Your task to perform on an android device: When is my next appointment? Image 0: 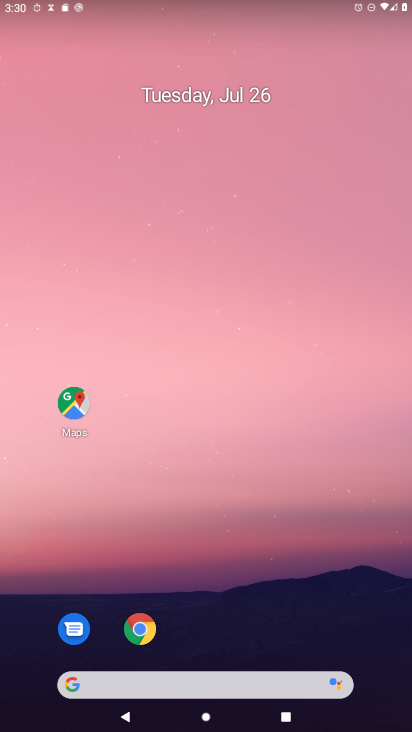
Step 0: drag from (222, 677) to (298, 34)
Your task to perform on an android device: When is my next appointment? Image 1: 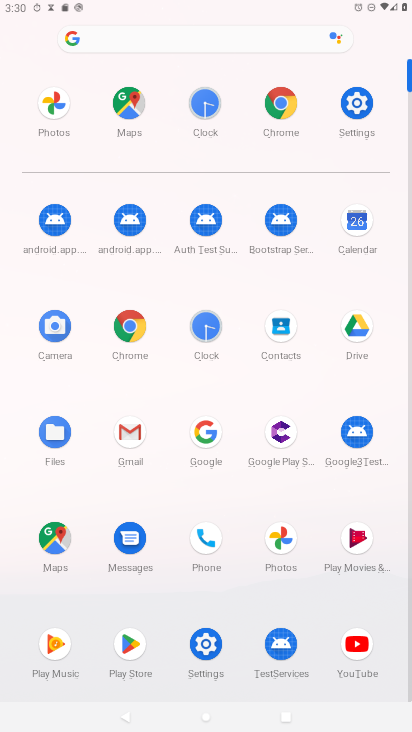
Step 1: click (351, 217)
Your task to perform on an android device: When is my next appointment? Image 2: 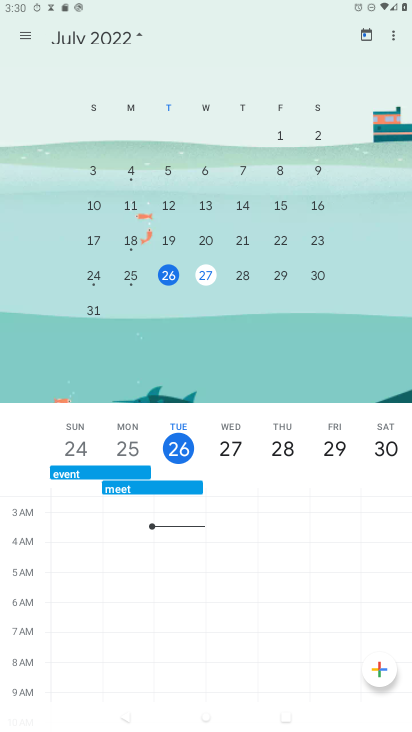
Step 2: click (241, 274)
Your task to perform on an android device: When is my next appointment? Image 3: 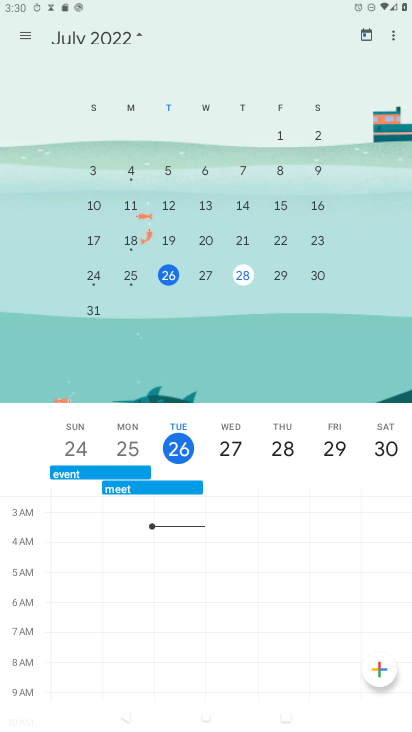
Step 3: task complete